Your task to perform on an android device: Go to notification settings Image 0: 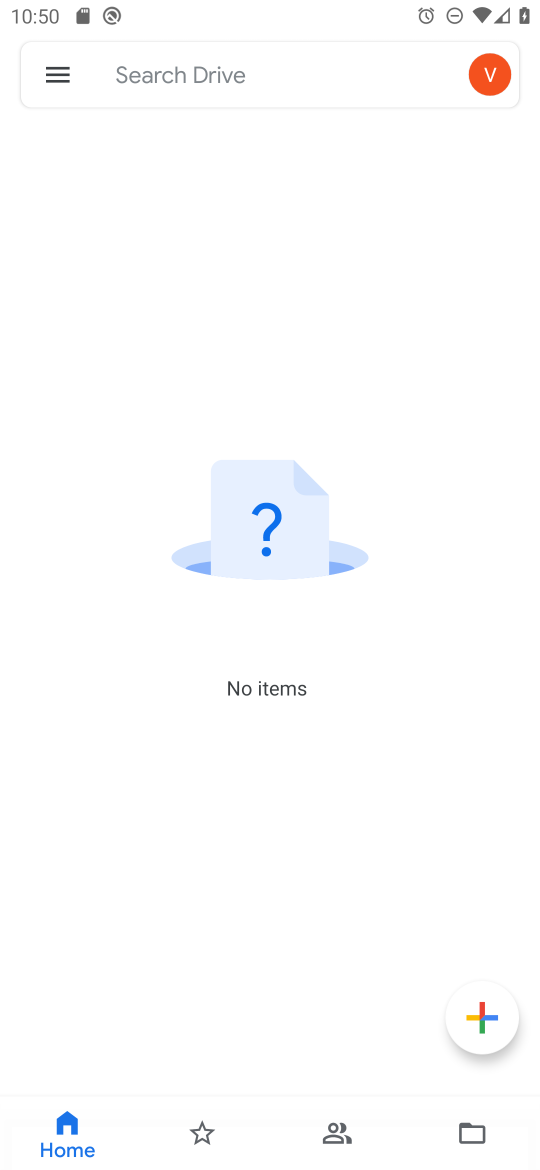
Step 0: press home button
Your task to perform on an android device: Go to notification settings Image 1: 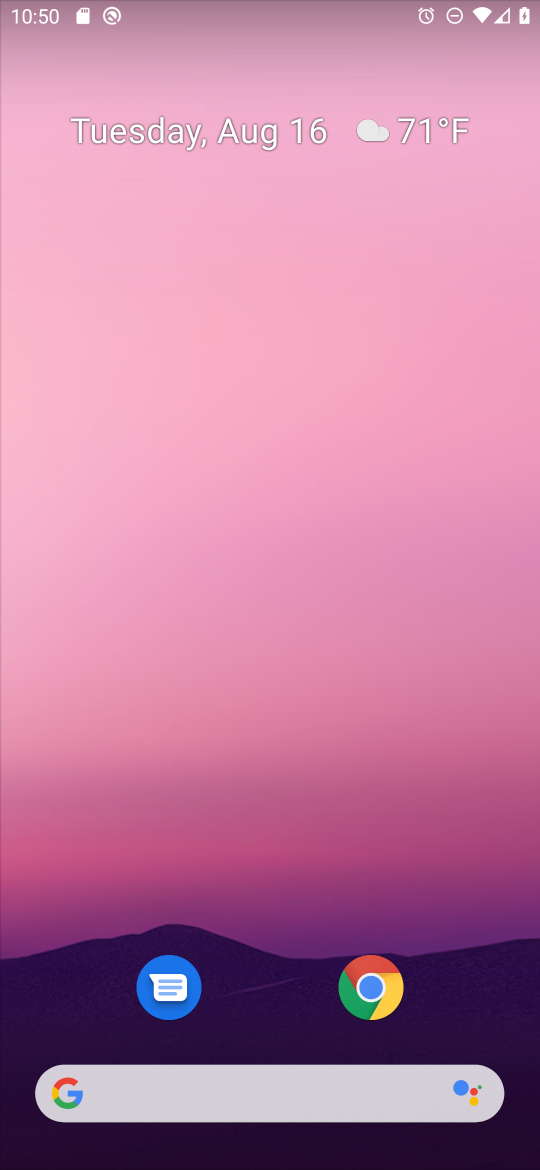
Step 1: drag from (43, 1125) to (153, 518)
Your task to perform on an android device: Go to notification settings Image 2: 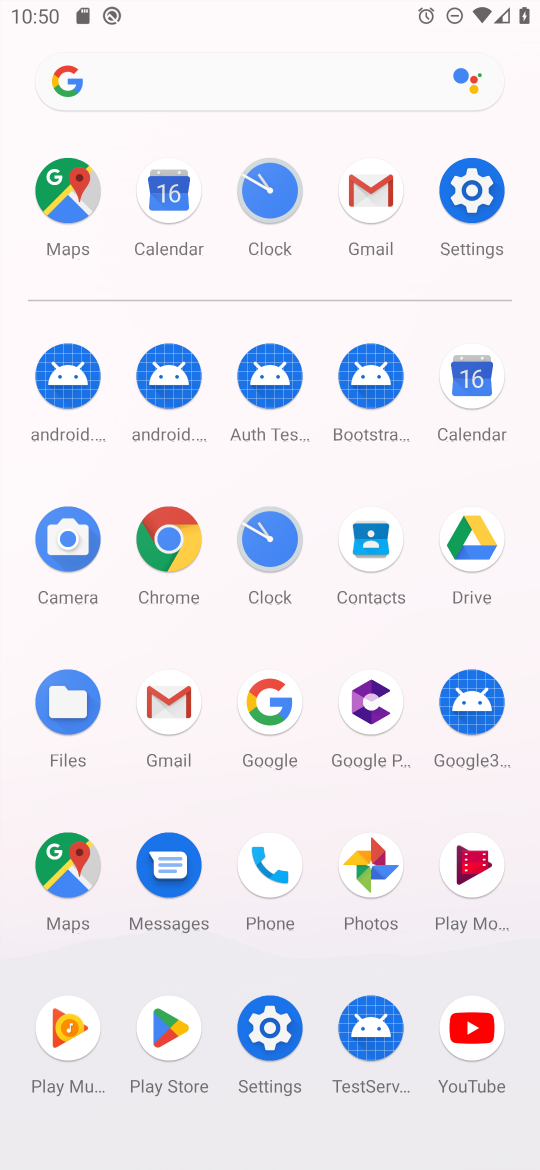
Step 2: click (278, 1036)
Your task to perform on an android device: Go to notification settings Image 3: 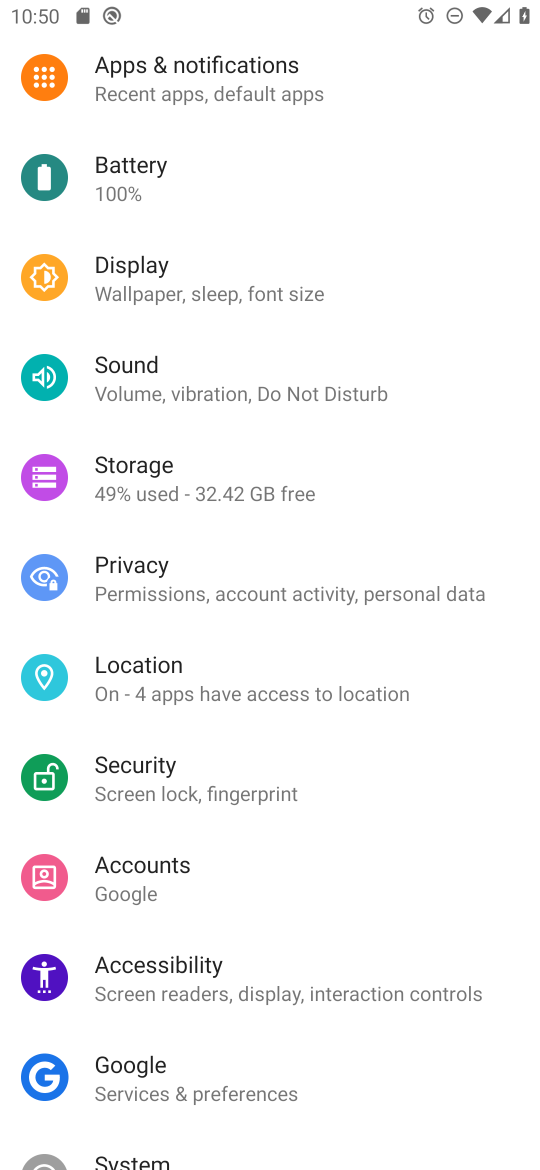
Step 3: click (240, 86)
Your task to perform on an android device: Go to notification settings Image 4: 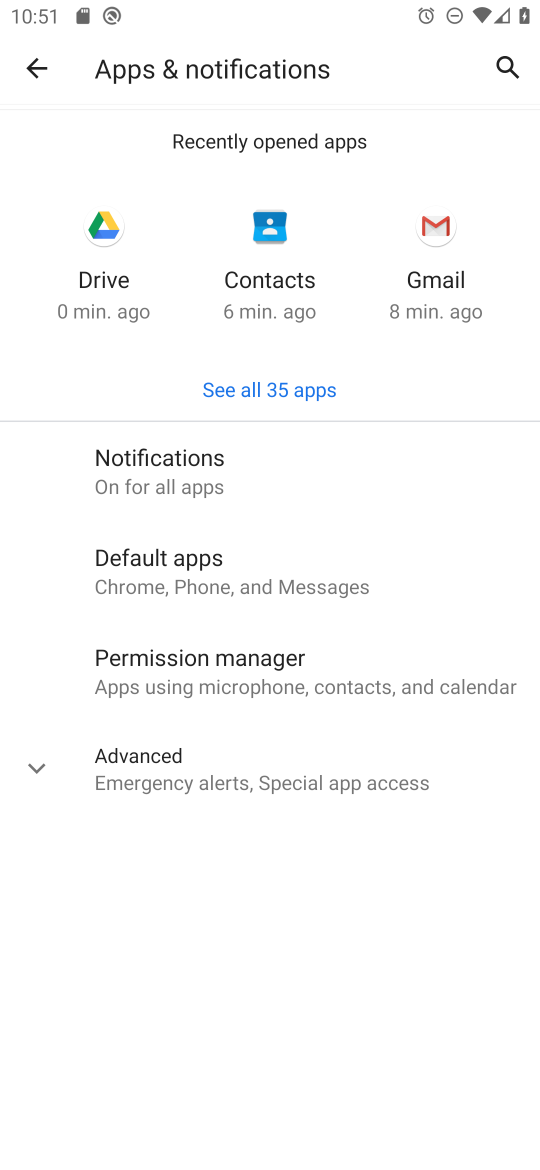
Step 4: task complete